Your task to perform on an android device: Clear all items from cart on costco. Image 0: 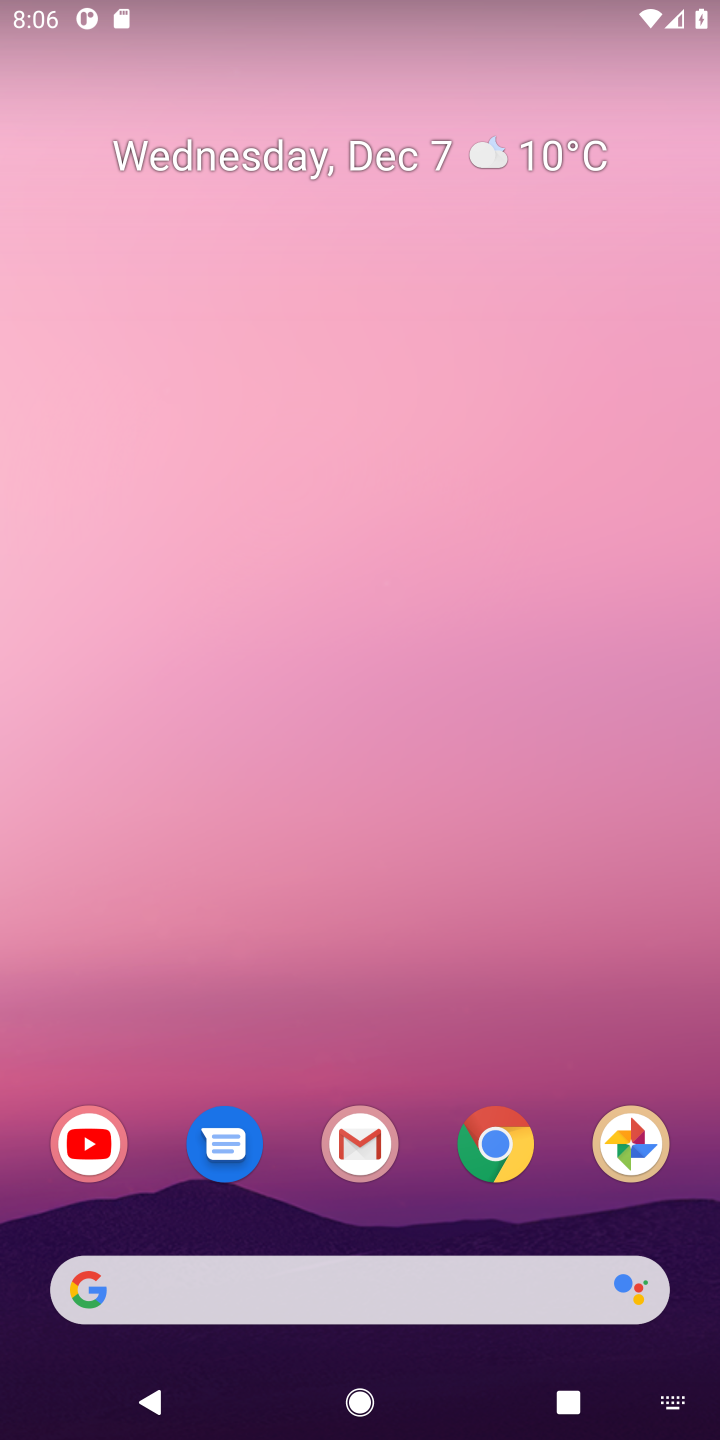
Step 0: press home button
Your task to perform on an android device: Clear all items from cart on costco. Image 1: 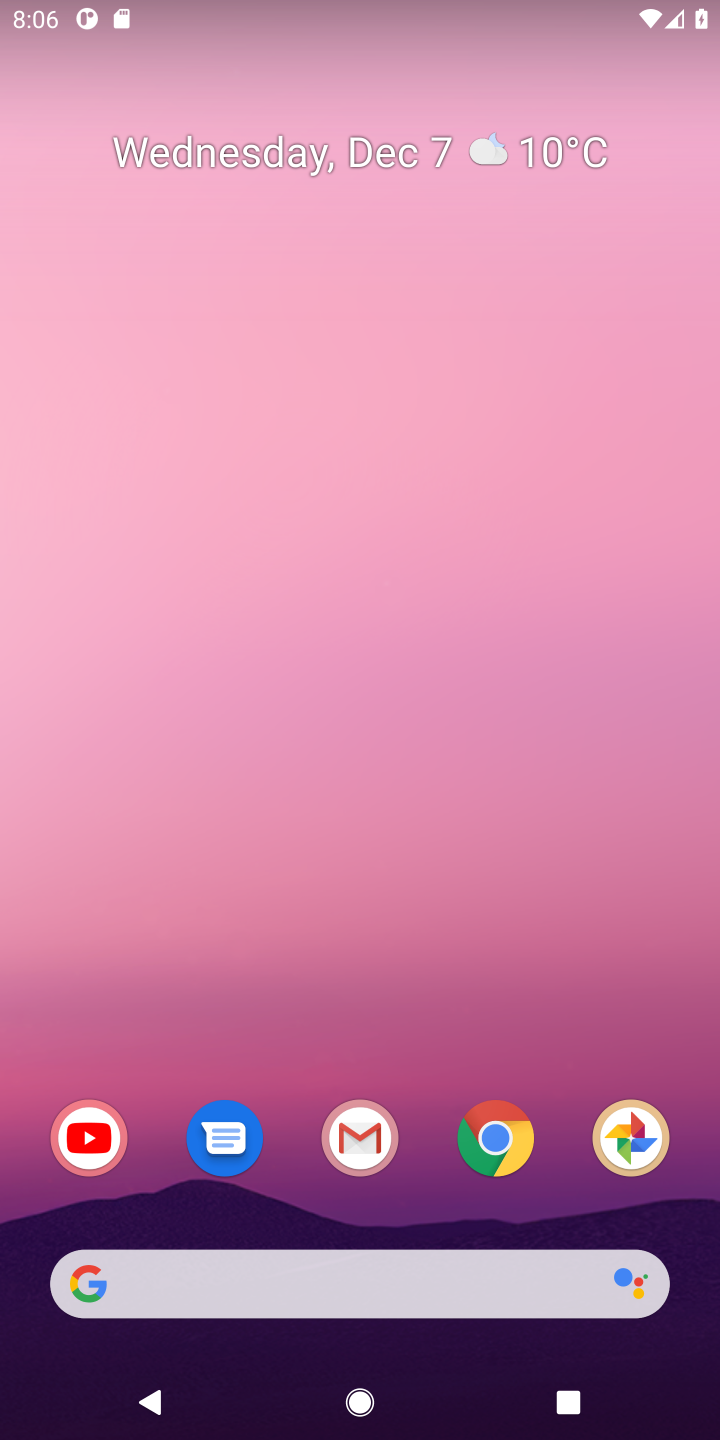
Step 1: click (150, 1282)
Your task to perform on an android device: Clear all items from cart on costco. Image 2: 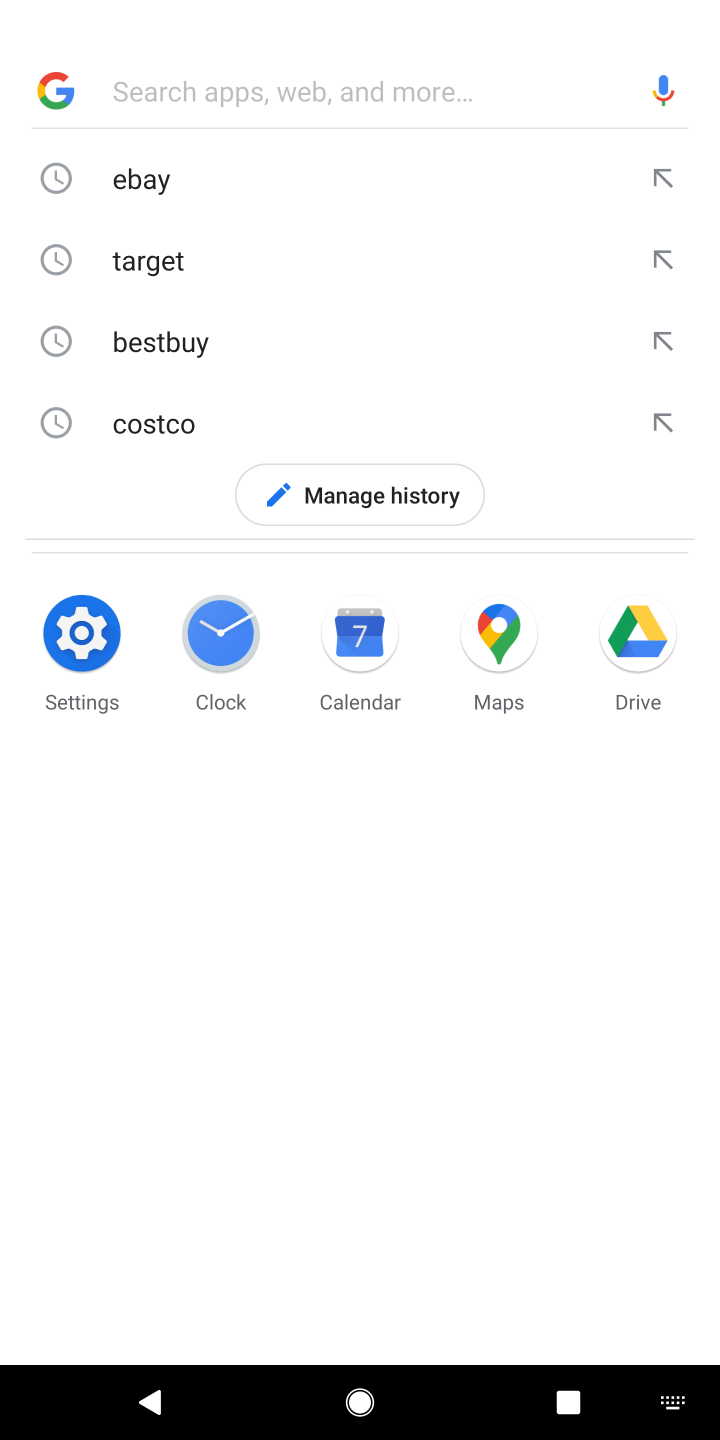
Step 2: type "costco"
Your task to perform on an android device: Clear all items from cart on costco. Image 3: 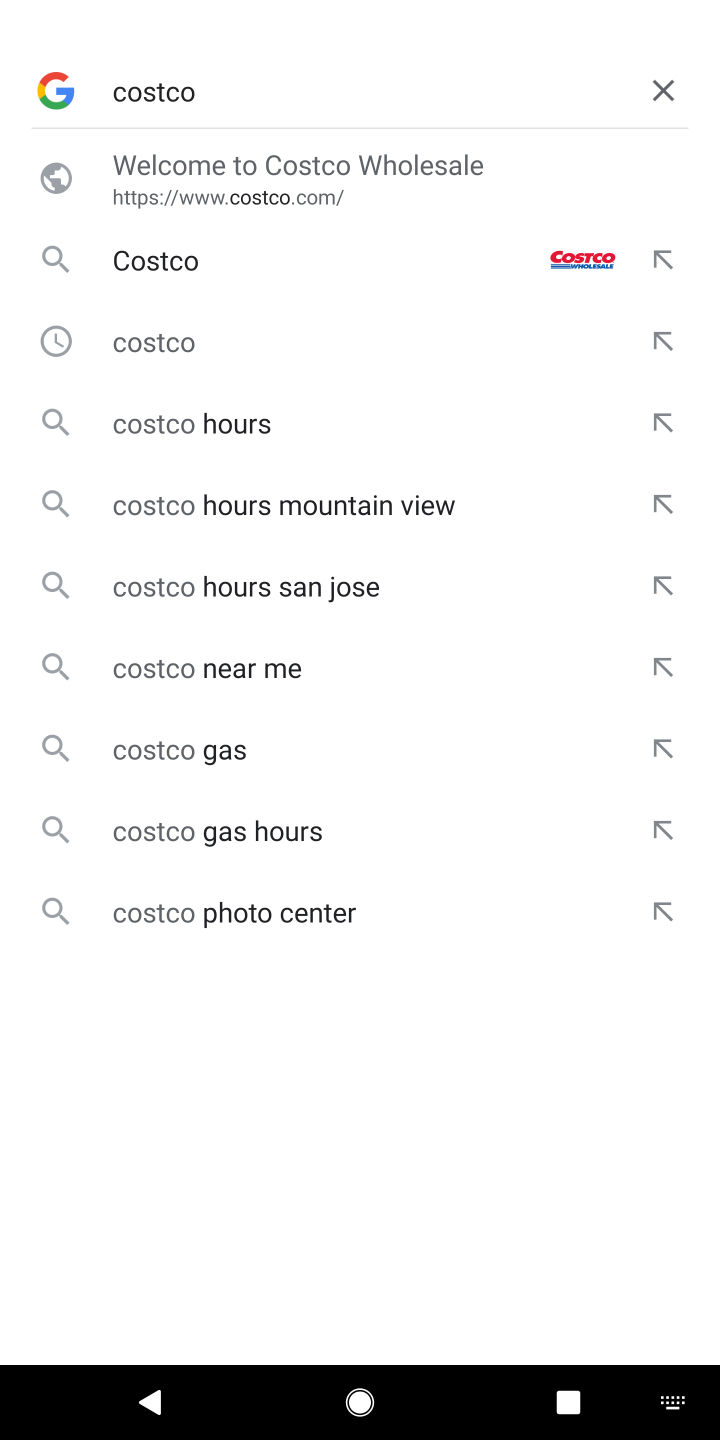
Step 3: press enter
Your task to perform on an android device: Clear all items from cart on costco. Image 4: 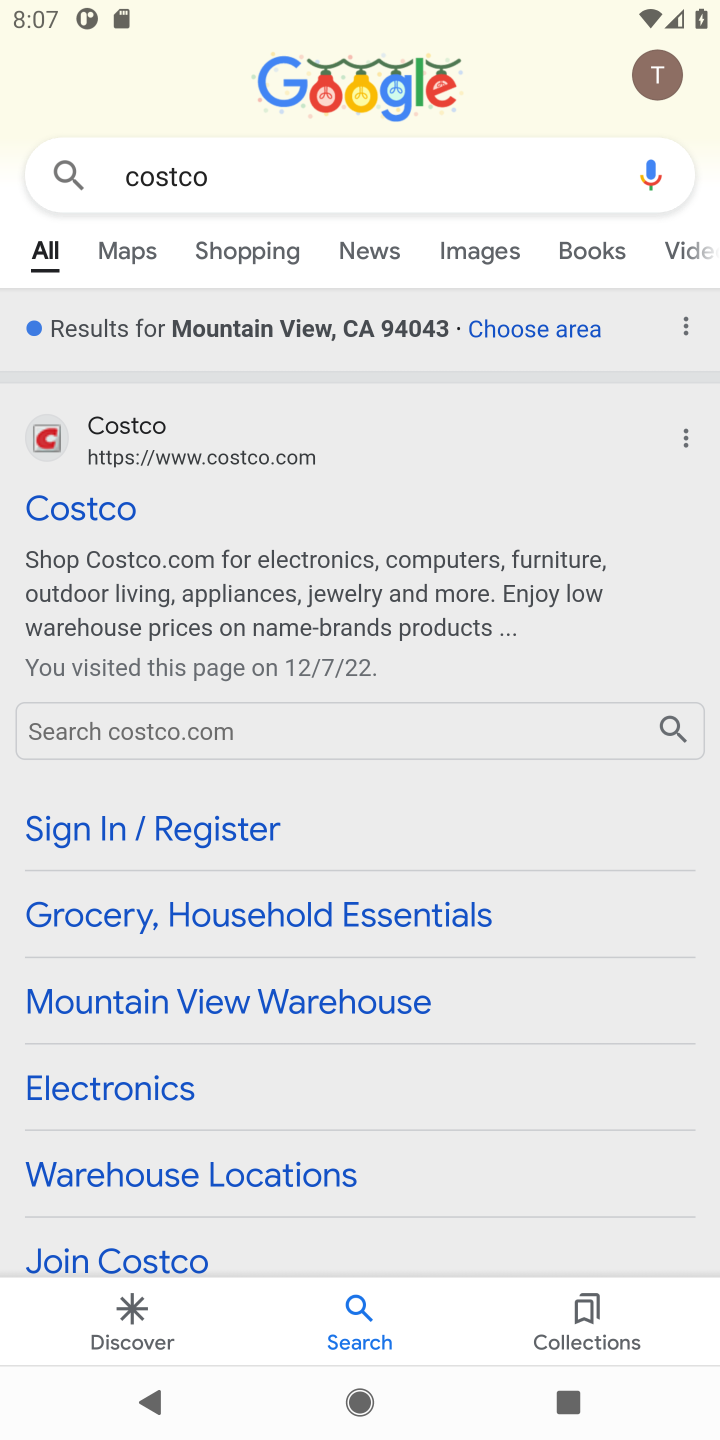
Step 4: click (88, 518)
Your task to perform on an android device: Clear all items from cart on costco. Image 5: 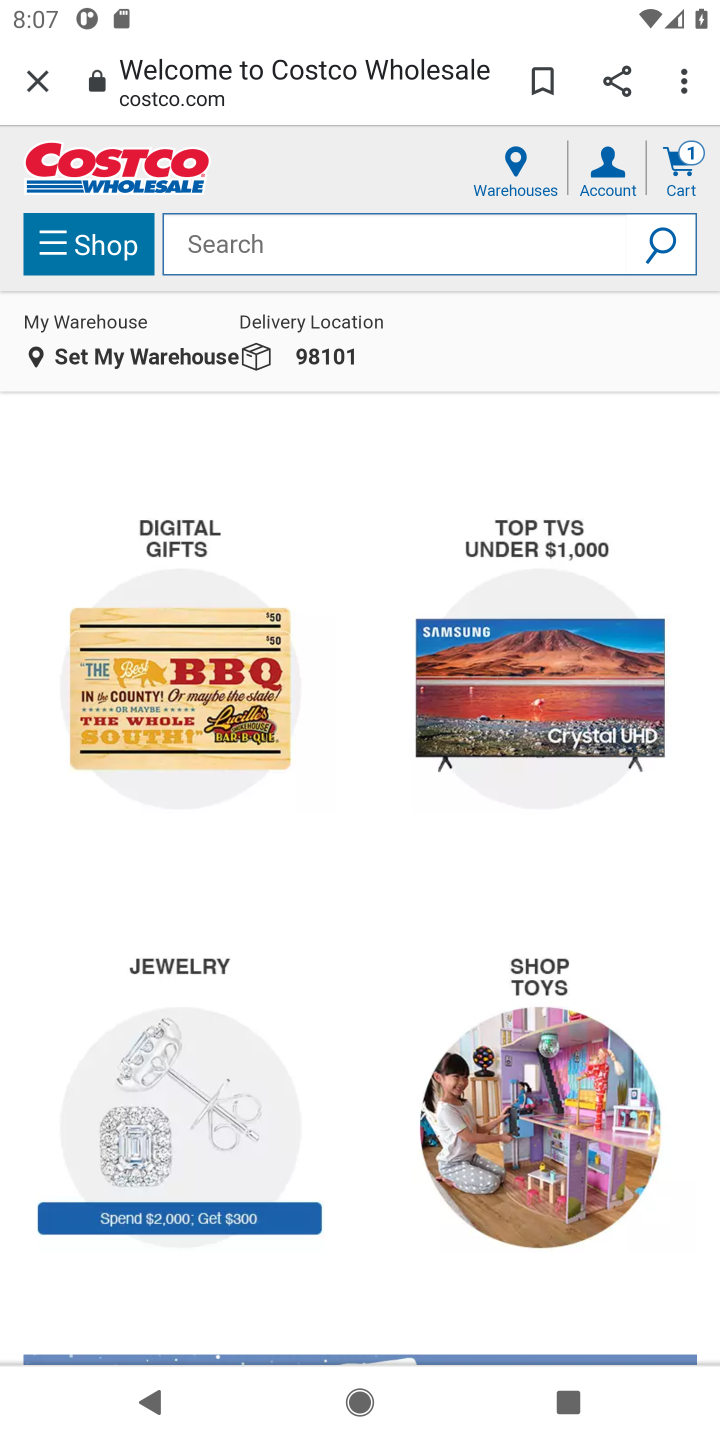
Step 5: click (688, 167)
Your task to perform on an android device: Clear all items from cart on costco. Image 6: 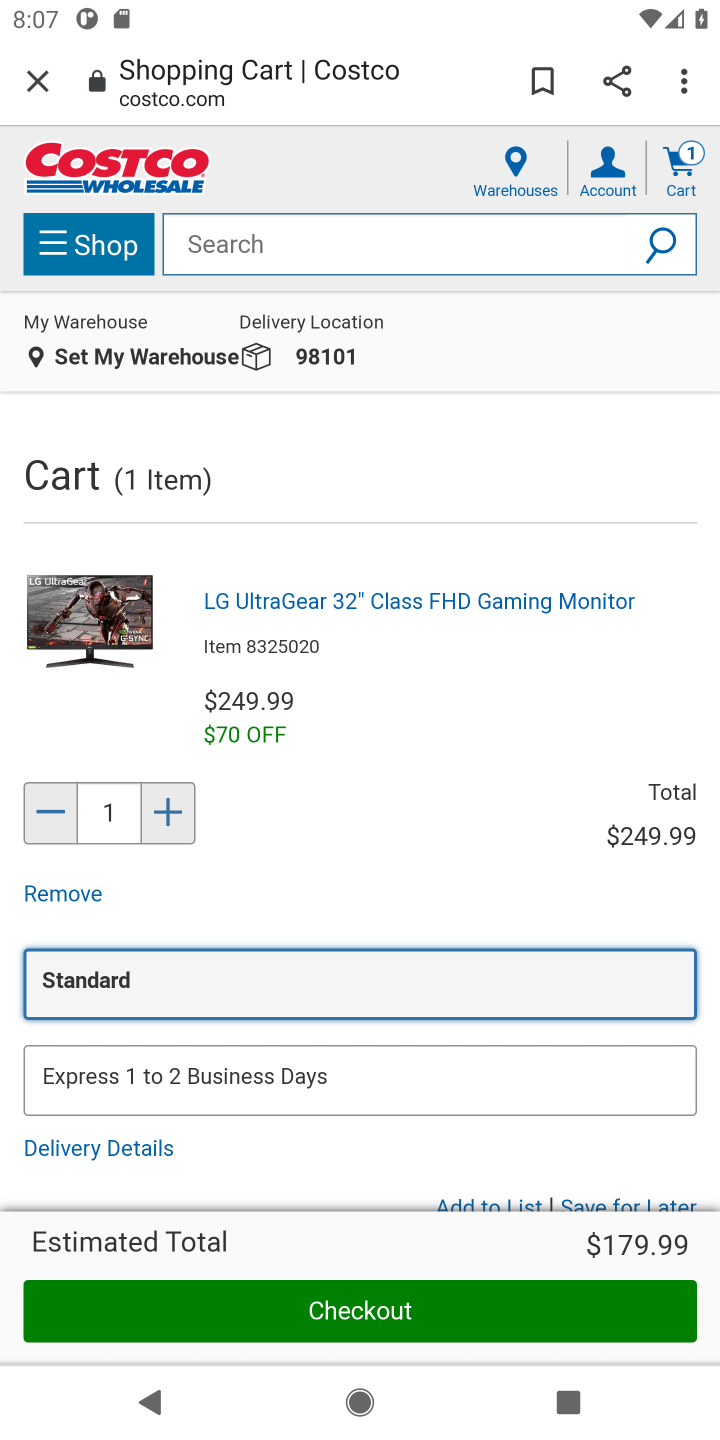
Step 6: click (60, 889)
Your task to perform on an android device: Clear all items from cart on costco. Image 7: 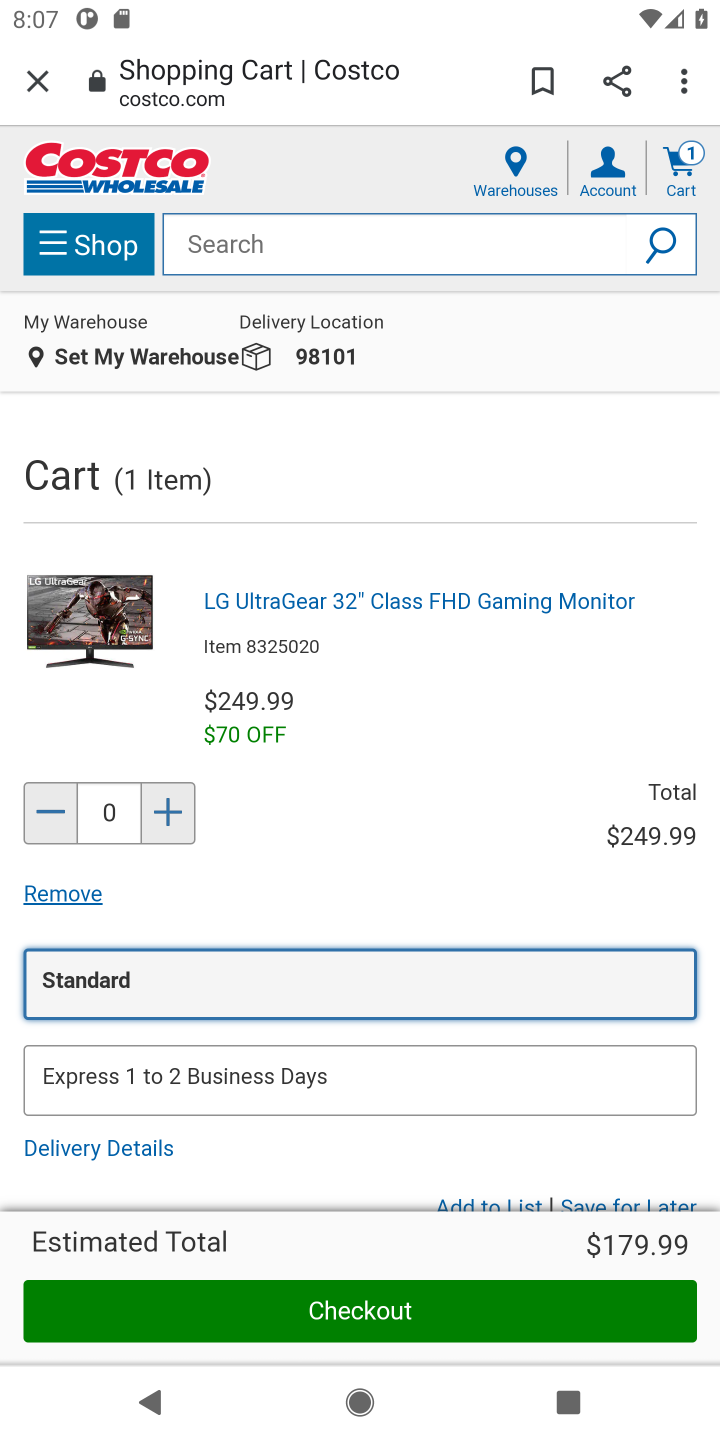
Step 7: task complete